Your task to perform on an android device: change alarm snooze length Image 0: 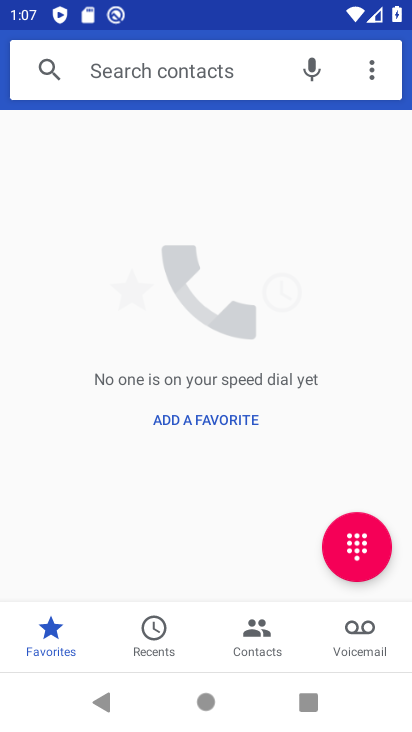
Step 0: drag from (285, 578) to (245, 35)
Your task to perform on an android device: change alarm snooze length Image 1: 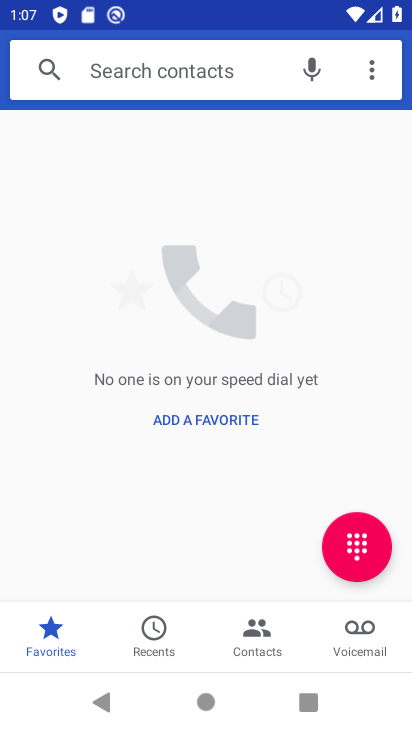
Step 1: press home button
Your task to perform on an android device: change alarm snooze length Image 2: 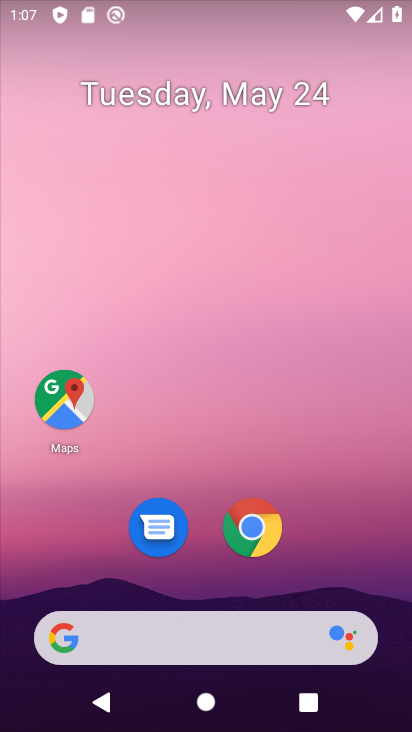
Step 2: drag from (179, 589) to (189, 13)
Your task to perform on an android device: change alarm snooze length Image 3: 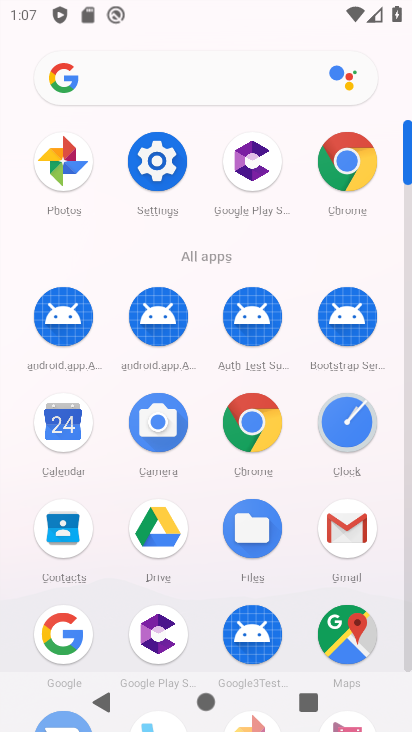
Step 3: click (158, 169)
Your task to perform on an android device: change alarm snooze length Image 4: 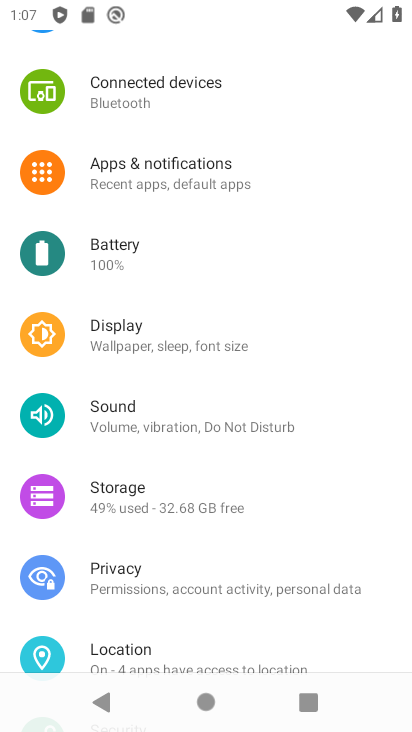
Step 4: press home button
Your task to perform on an android device: change alarm snooze length Image 5: 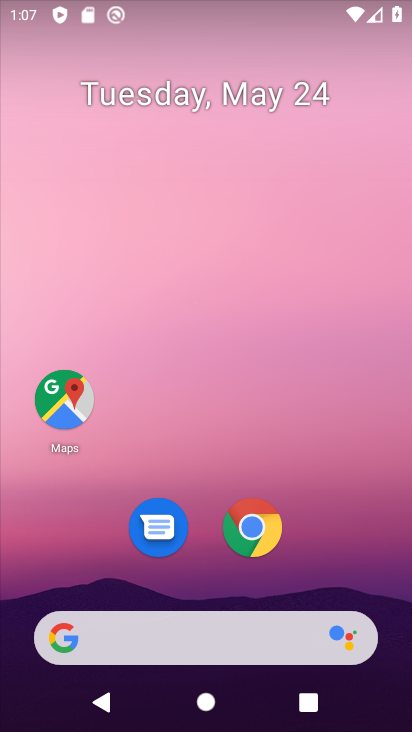
Step 5: drag from (209, 561) to (207, 9)
Your task to perform on an android device: change alarm snooze length Image 6: 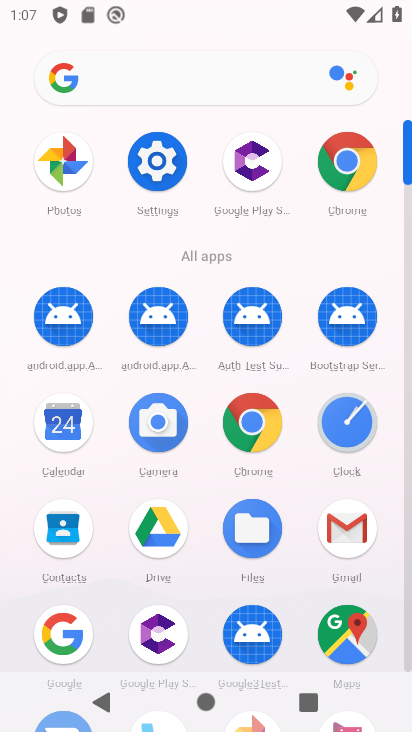
Step 6: click (350, 428)
Your task to perform on an android device: change alarm snooze length Image 7: 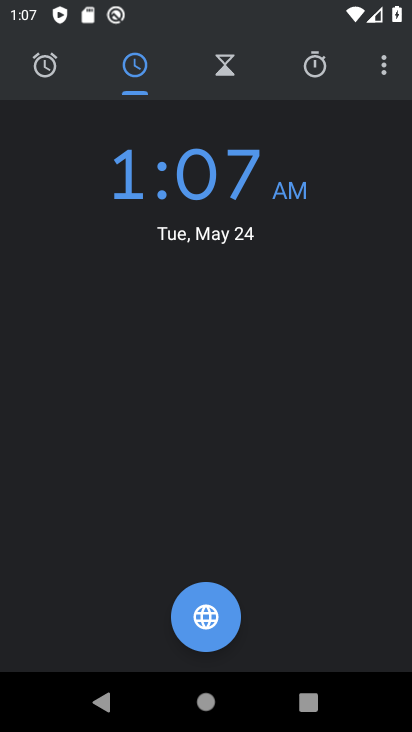
Step 7: click (383, 79)
Your task to perform on an android device: change alarm snooze length Image 8: 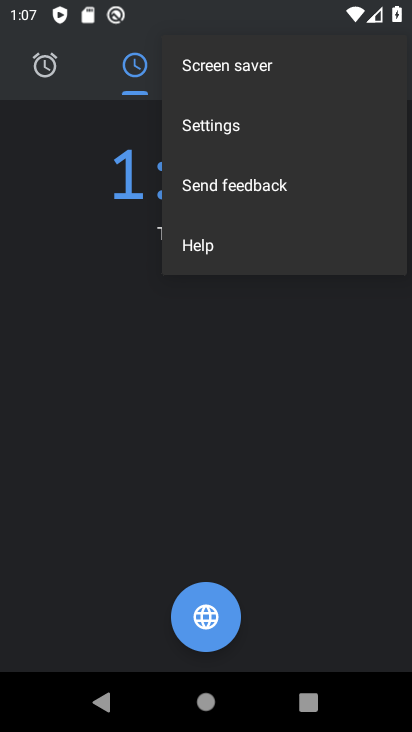
Step 8: click (180, 138)
Your task to perform on an android device: change alarm snooze length Image 9: 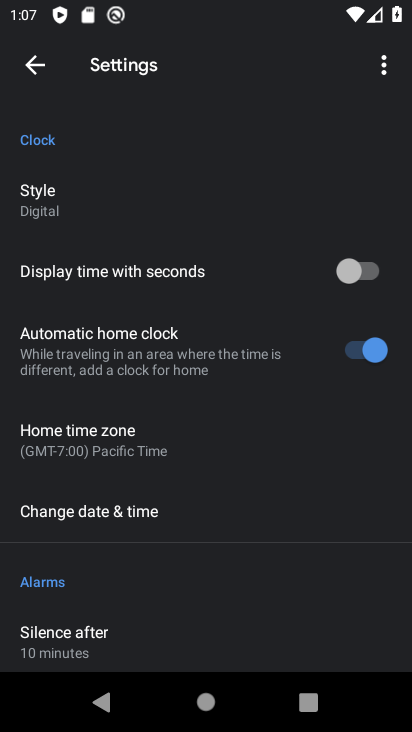
Step 9: drag from (157, 581) to (196, 164)
Your task to perform on an android device: change alarm snooze length Image 10: 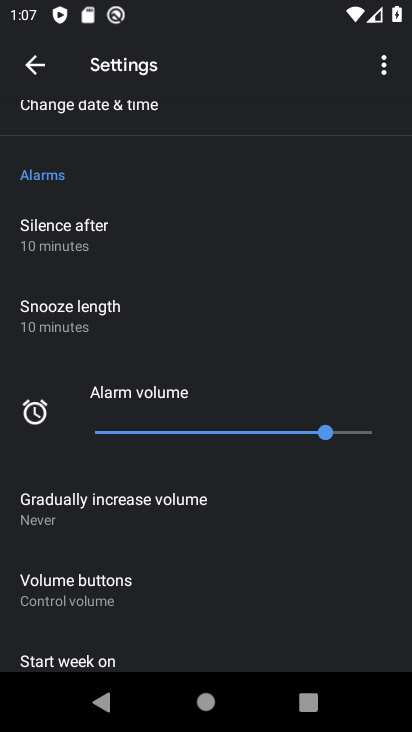
Step 10: click (78, 318)
Your task to perform on an android device: change alarm snooze length Image 11: 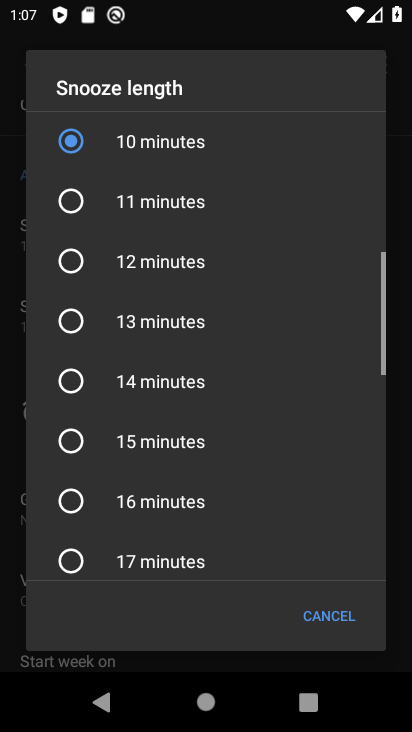
Step 11: click (72, 325)
Your task to perform on an android device: change alarm snooze length Image 12: 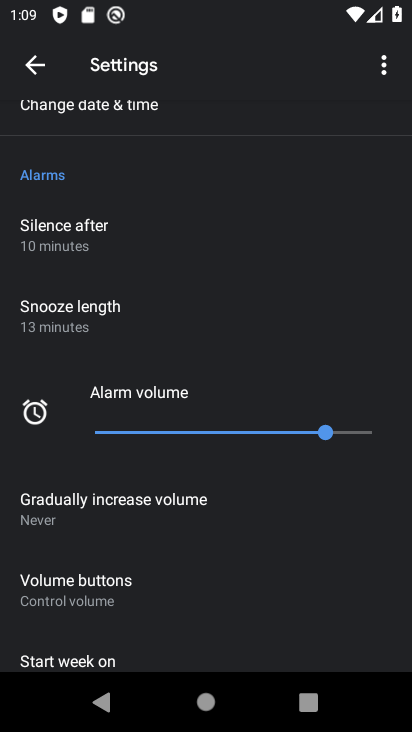
Step 12: click (97, 331)
Your task to perform on an android device: change alarm snooze length Image 13: 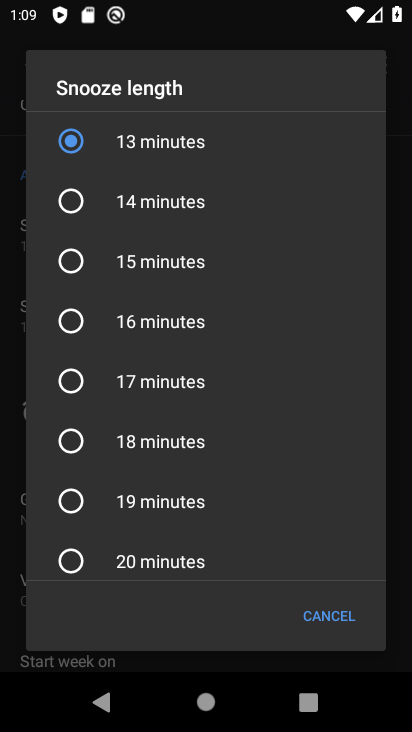
Step 13: click (70, 271)
Your task to perform on an android device: change alarm snooze length Image 14: 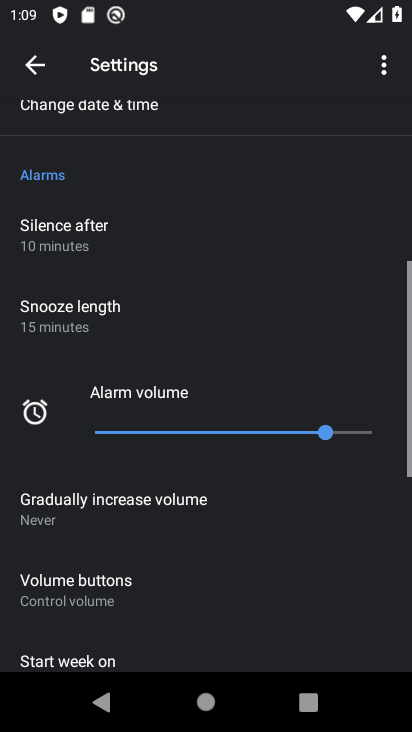
Step 14: task complete